Your task to perform on an android device: Search for Italian restaurants on Maps Image 0: 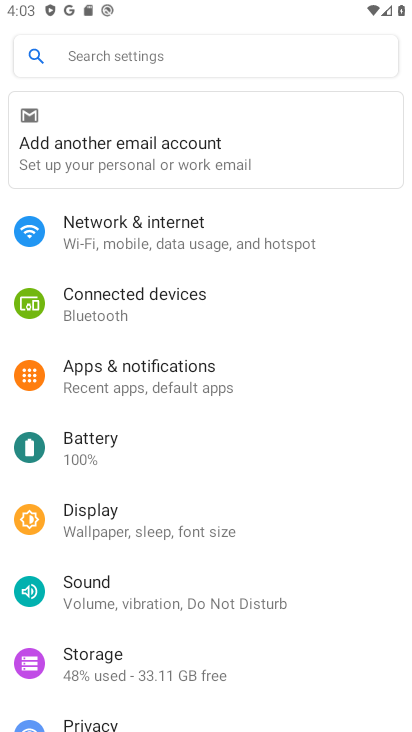
Step 0: press home button
Your task to perform on an android device: Search for Italian restaurants on Maps Image 1: 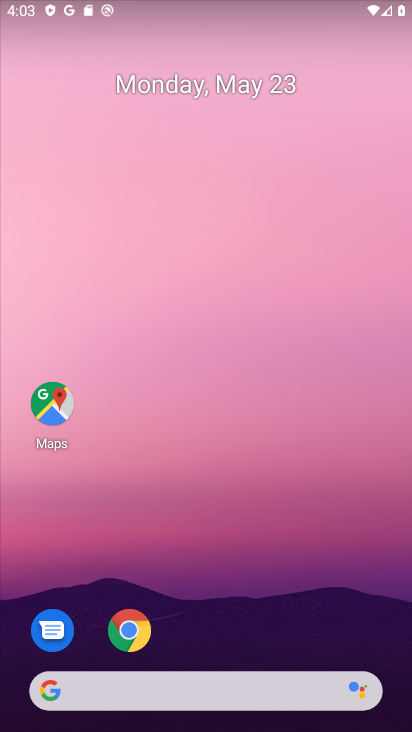
Step 1: click (52, 401)
Your task to perform on an android device: Search for Italian restaurants on Maps Image 2: 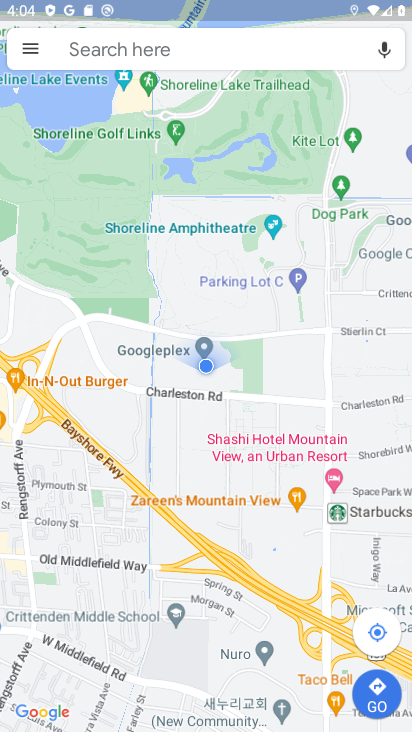
Step 2: click (128, 39)
Your task to perform on an android device: Search for Italian restaurants on Maps Image 3: 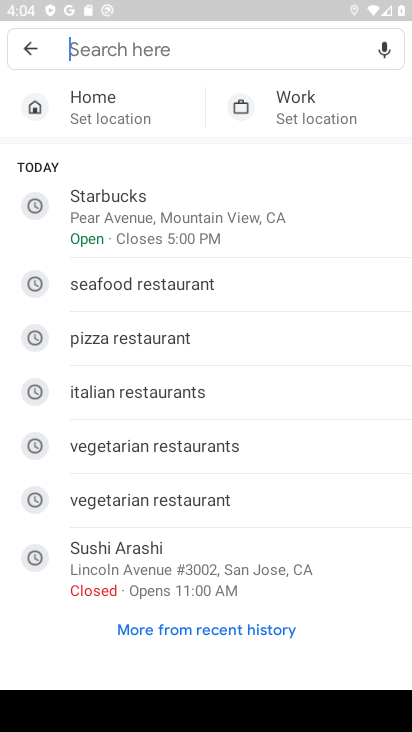
Step 3: click (220, 391)
Your task to perform on an android device: Search for Italian restaurants on Maps Image 4: 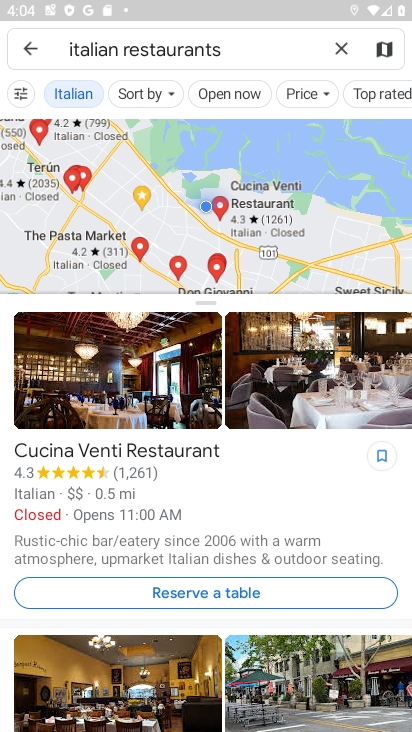
Step 4: task complete